Your task to perform on an android device: Go to Google maps Image 0: 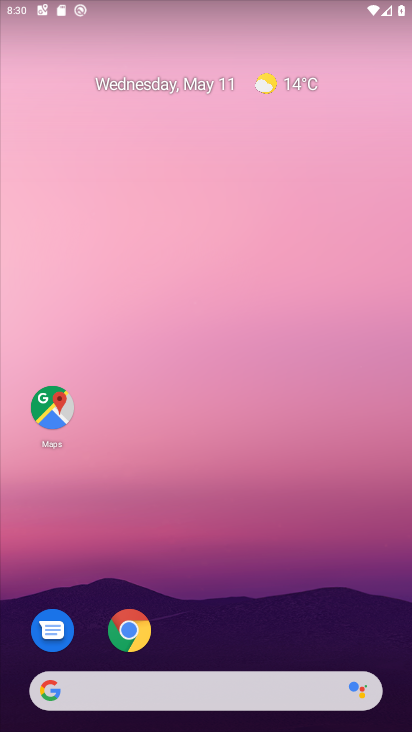
Step 0: click (37, 405)
Your task to perform on an android device: Go to Google maps Image 1: 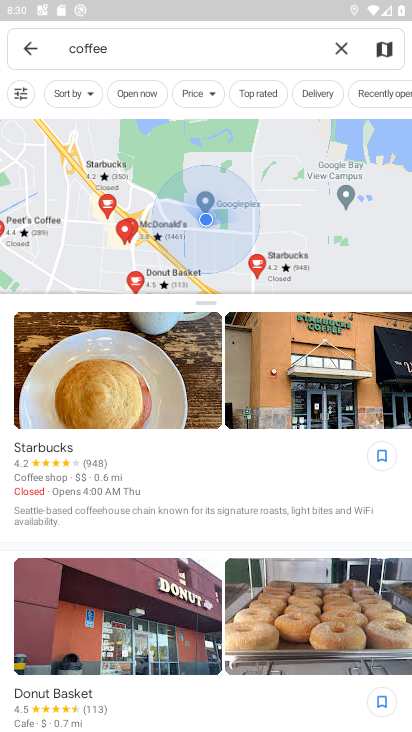
Step 1: task complete